Your task to perform on an android device: all mails in gmail Image 0: 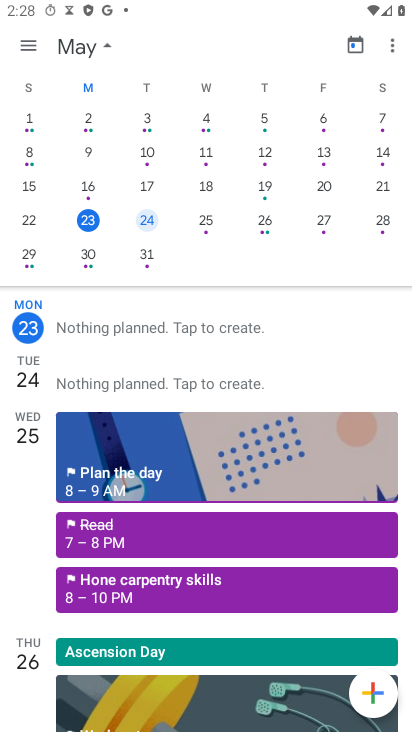
Step 0: press home button
Your task to perform on an android device: all mails in gmail Image 1: 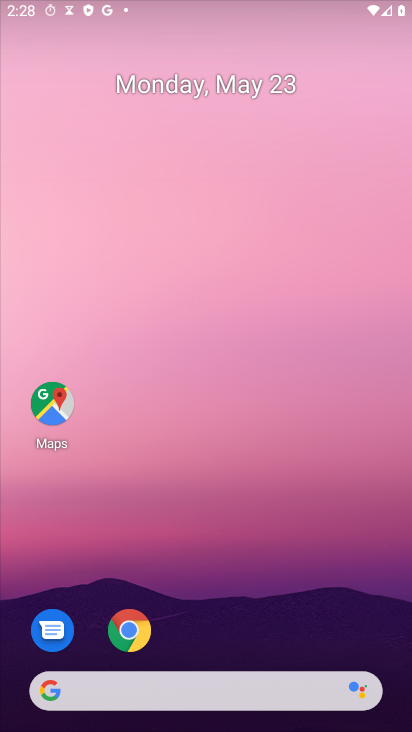
Step 1: drag from (295, 597) to (332, 93)
Your task to perform on an android device: all mails in gmail Image 2: 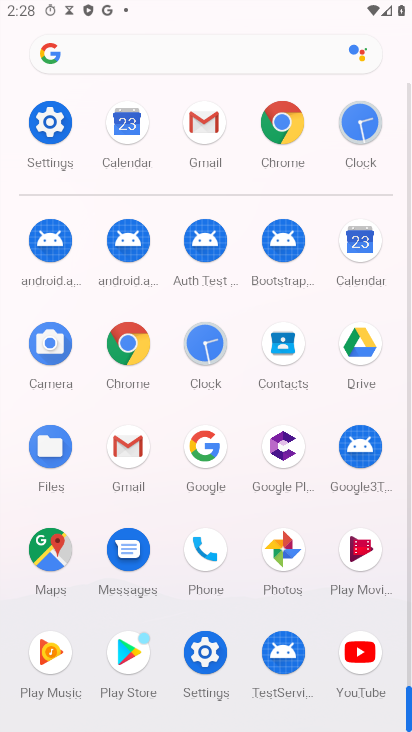
Step 2: click (188, 128)
Your task to perform on an android device: all mails in gmail Image 3: 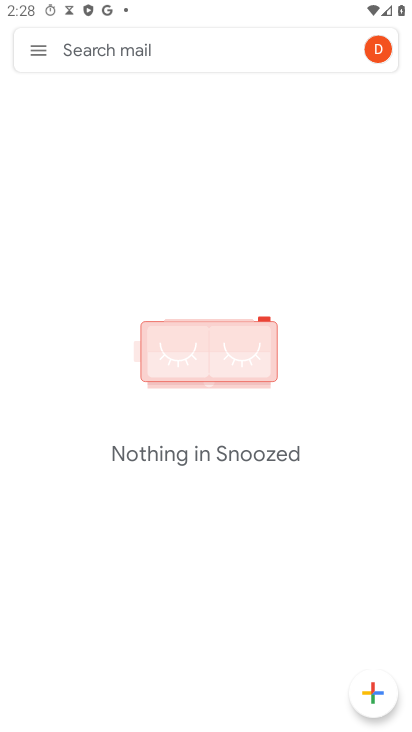
Step 3: click (27, 48)
Your task to perform on an android device: all mails in gmail Image 4: 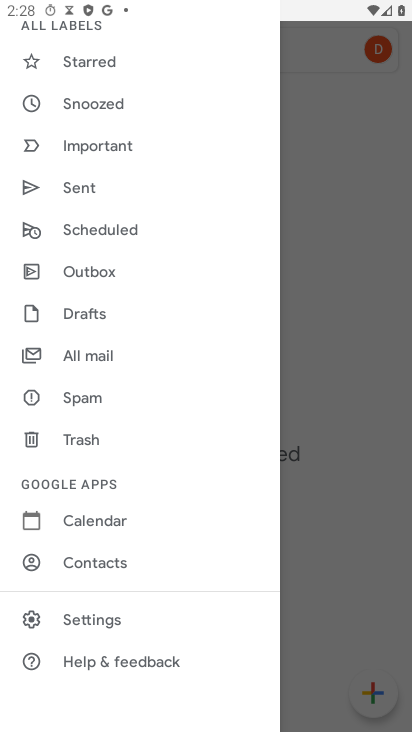
Step 4: click (99, 349)
Your task to perform on an android device: all mails in gmail Image 5: 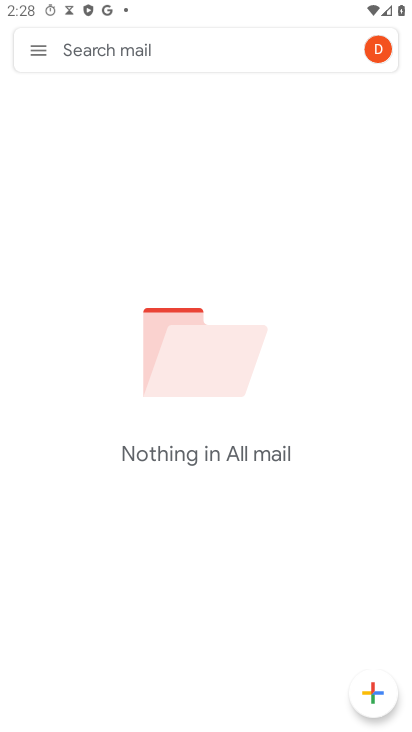
Step 5: task complete